Your task to perform on an android device: Search for Italian restaurants on Maps Image 0: 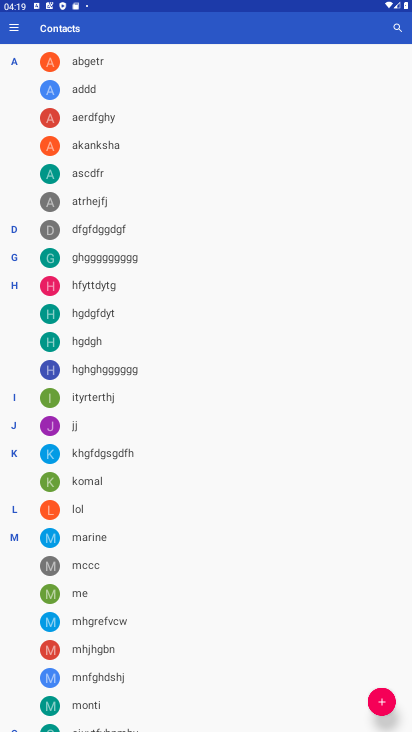
Step 0: press home button
Your task to perform on an android device: Search for Italian restaurants on Maps Image 1: 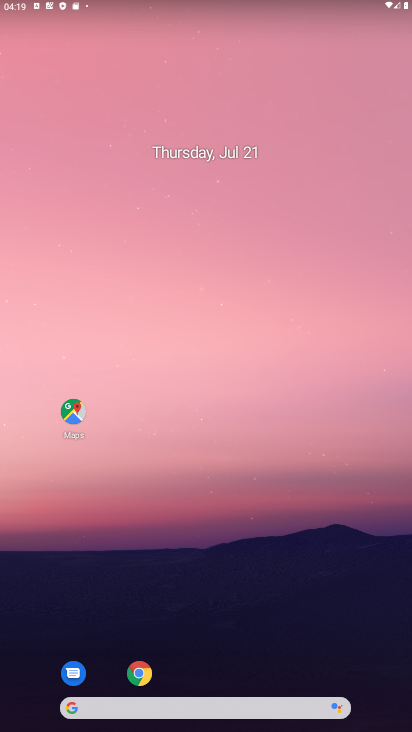
Step 1: click (73, 411)
Your task to perform on an android device: Search for Italian restaurants on Maps Image 2: 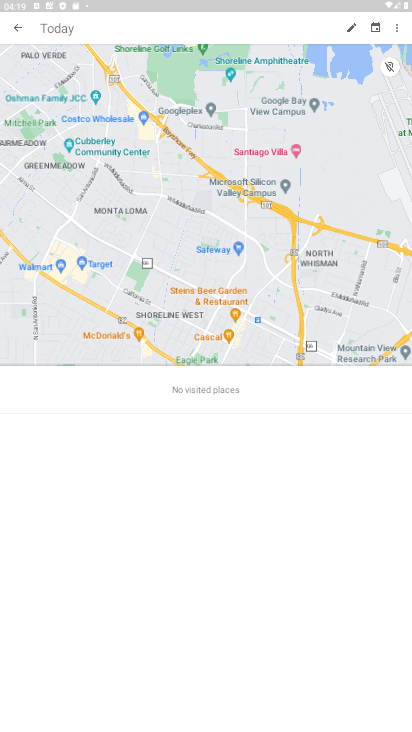
Step 2: press back button
Your task to perform on an android device: Search for Italian restaurants on Maps Image 3: 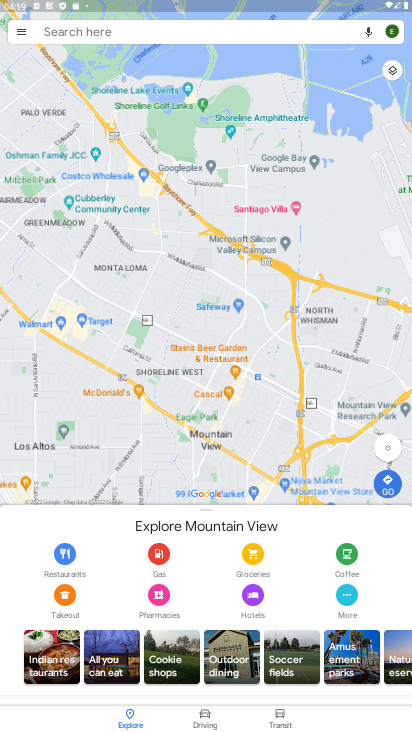
Step 3: click (81, 29)
Your task to perform on an android device: Search for Italian restaurants on Maps Image 4: 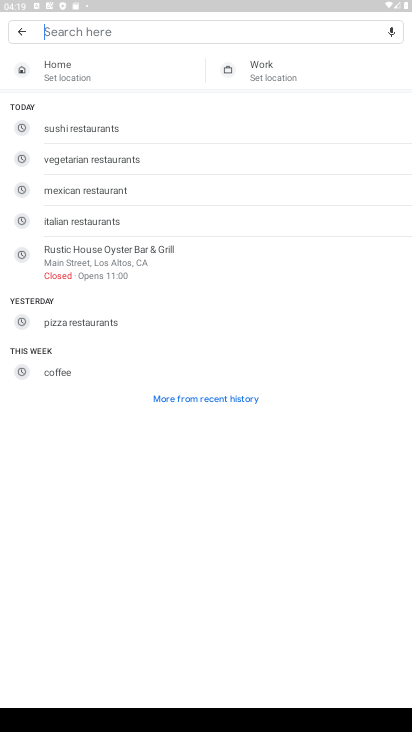
Step 4: type "italian restaurants"
Your task to perform on an android device: Search for Italian restaurants on Maps Image 5: 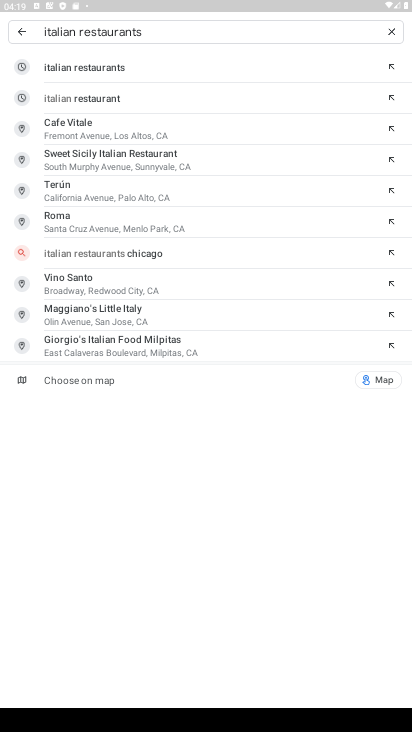
Step 5: click (82, 72)
Your task to perform on an android device: Search for Italian restaurants on Maps Image 6: 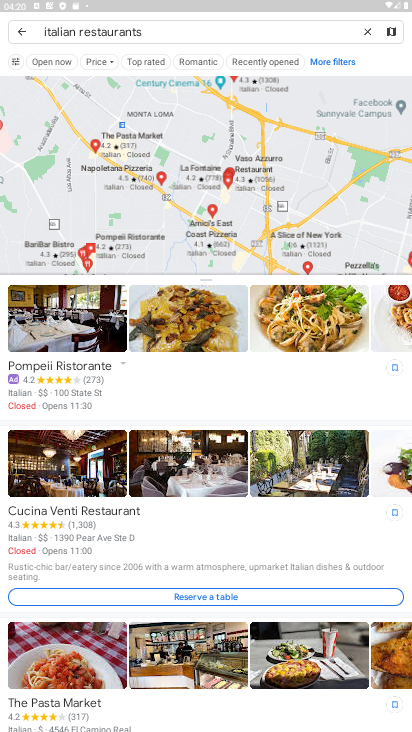
Step 6: task complete